Your task to perform on an android device: Check my gmail inbox Image 0: 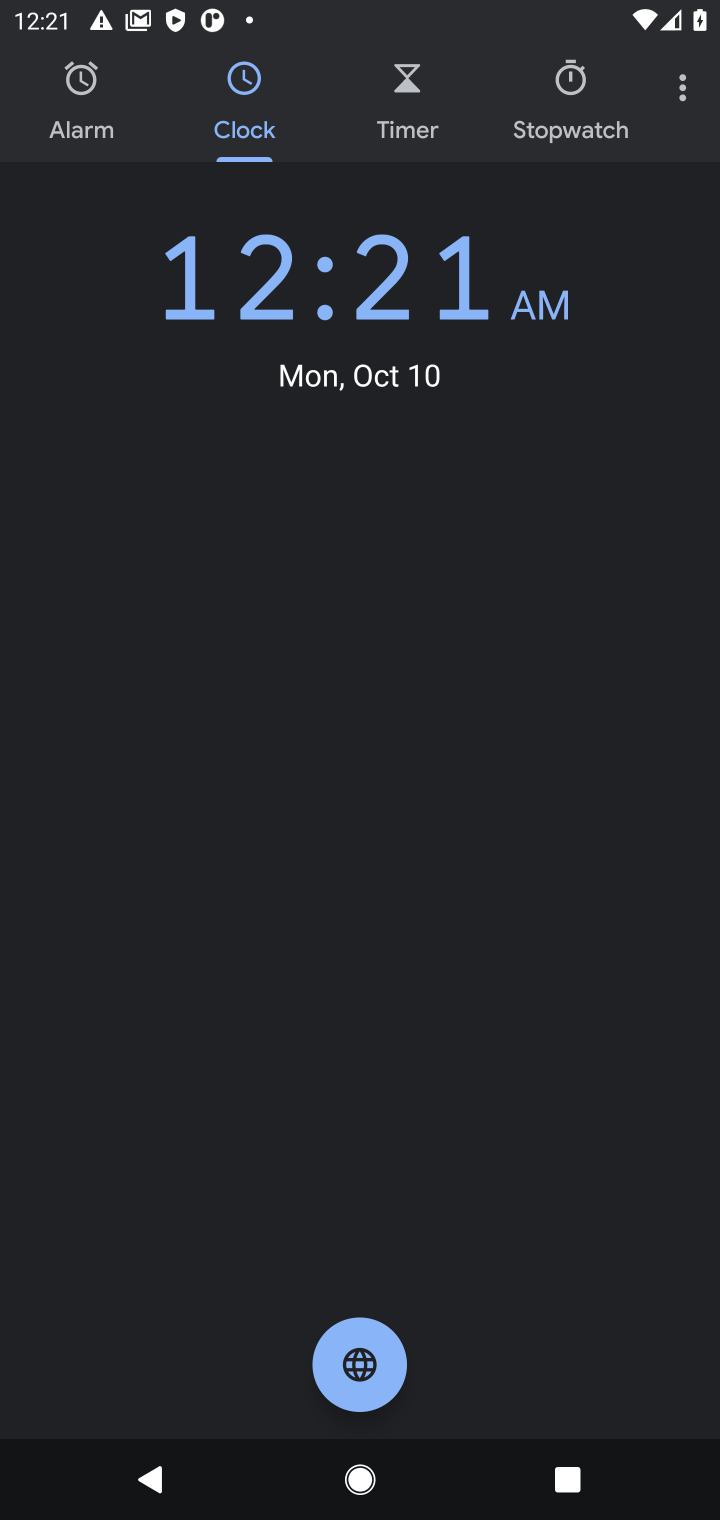
Step 0: press home button
Your task to perform on an android device: Check my gmail inbox Image 1: 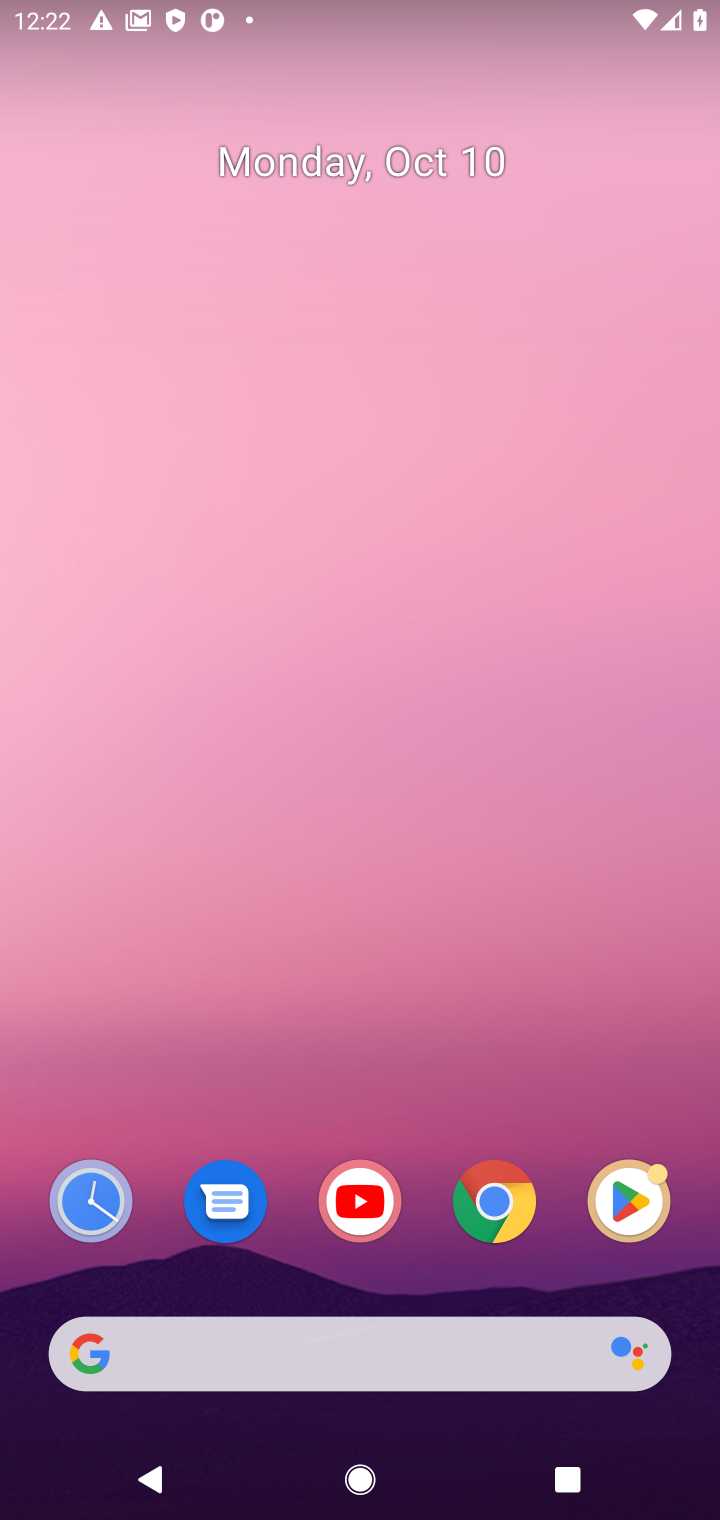
Step 1: drag from (562, 1180) to (619, 112)
Your task to perform on an android device: Check my gmail inbox Image 2: 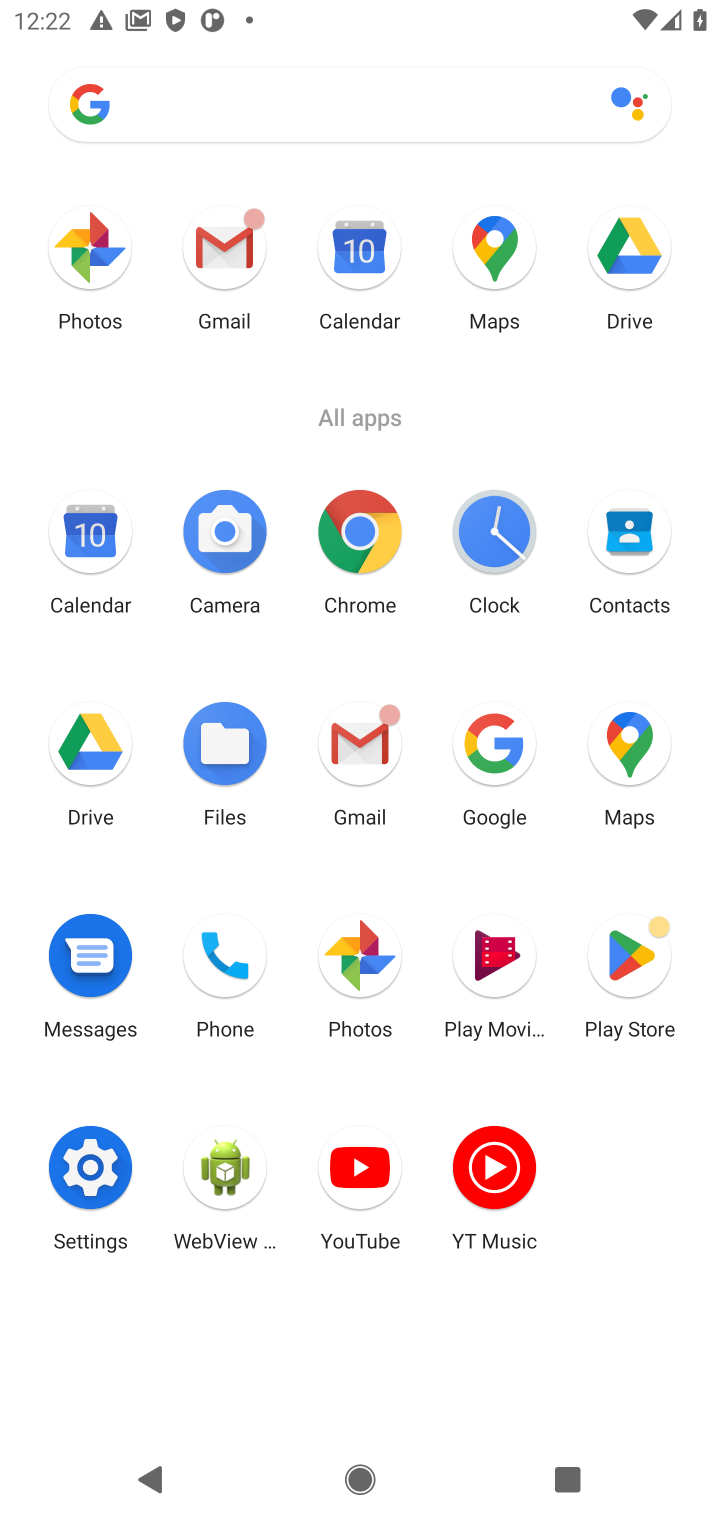
Step 2: click (226, 284)
Your task to perform on an android device: Check my gmail inbox Image 3: 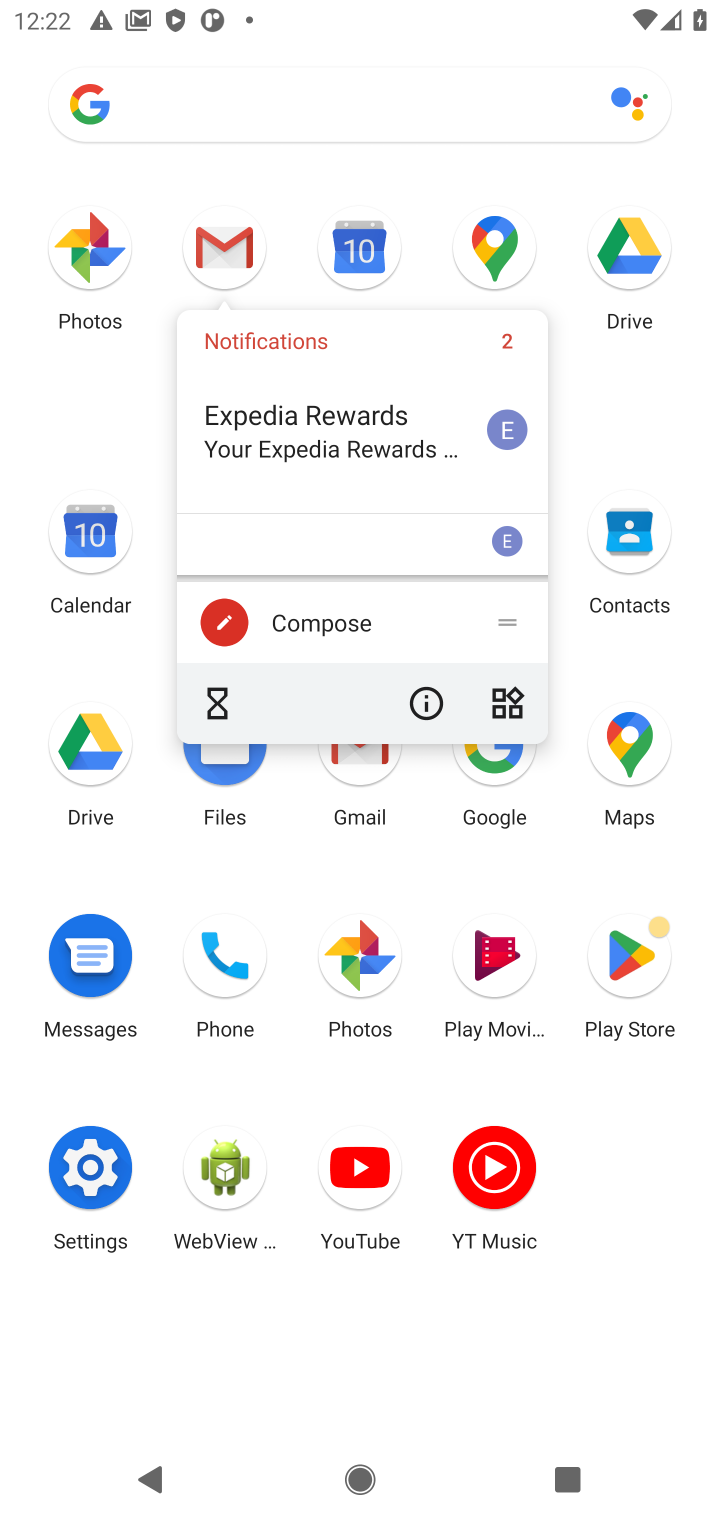
Step 3: click (224, 270)
Your task to perform on an android device: Check my gmail inbox Image 4: 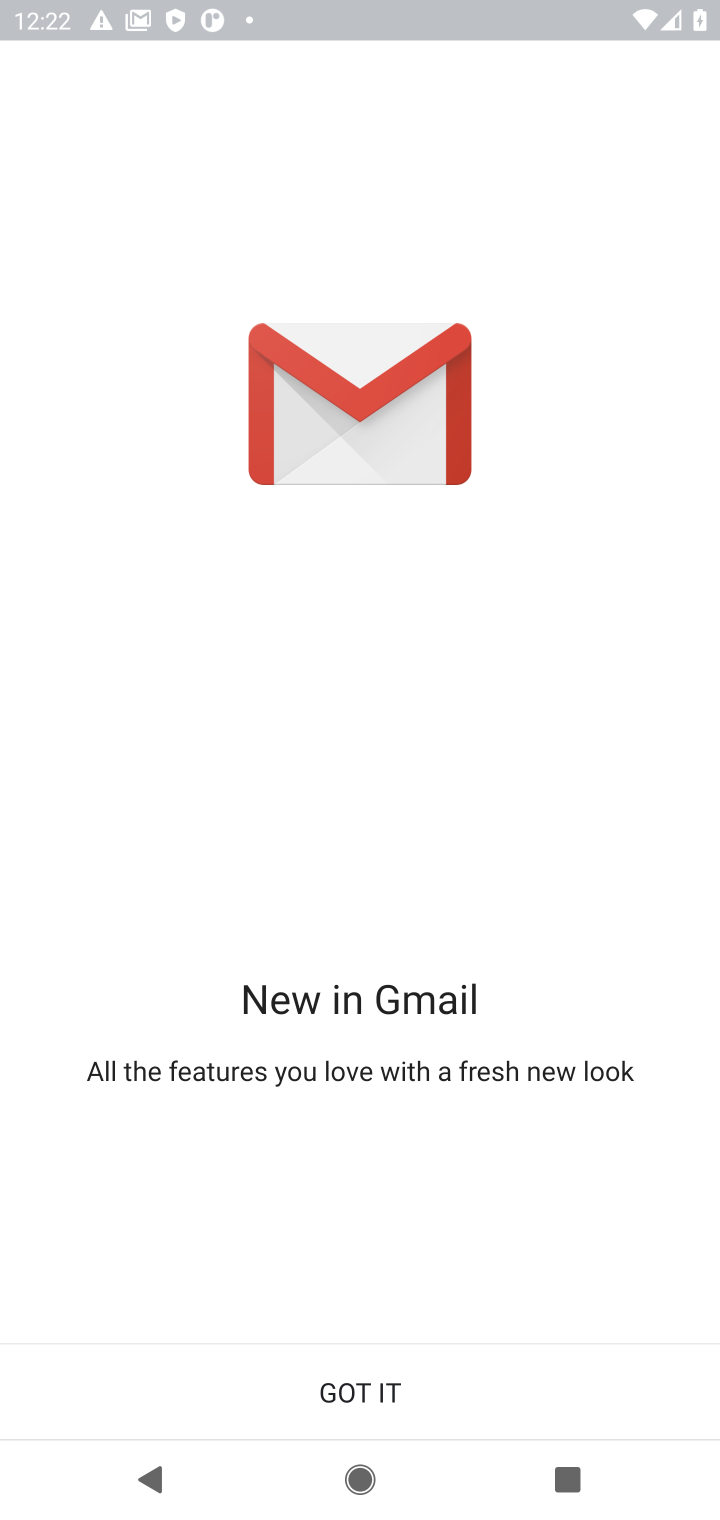
Step 4: click (328, 1419)
Your task to perform on an android device: Check my gmail inbox Image 5: 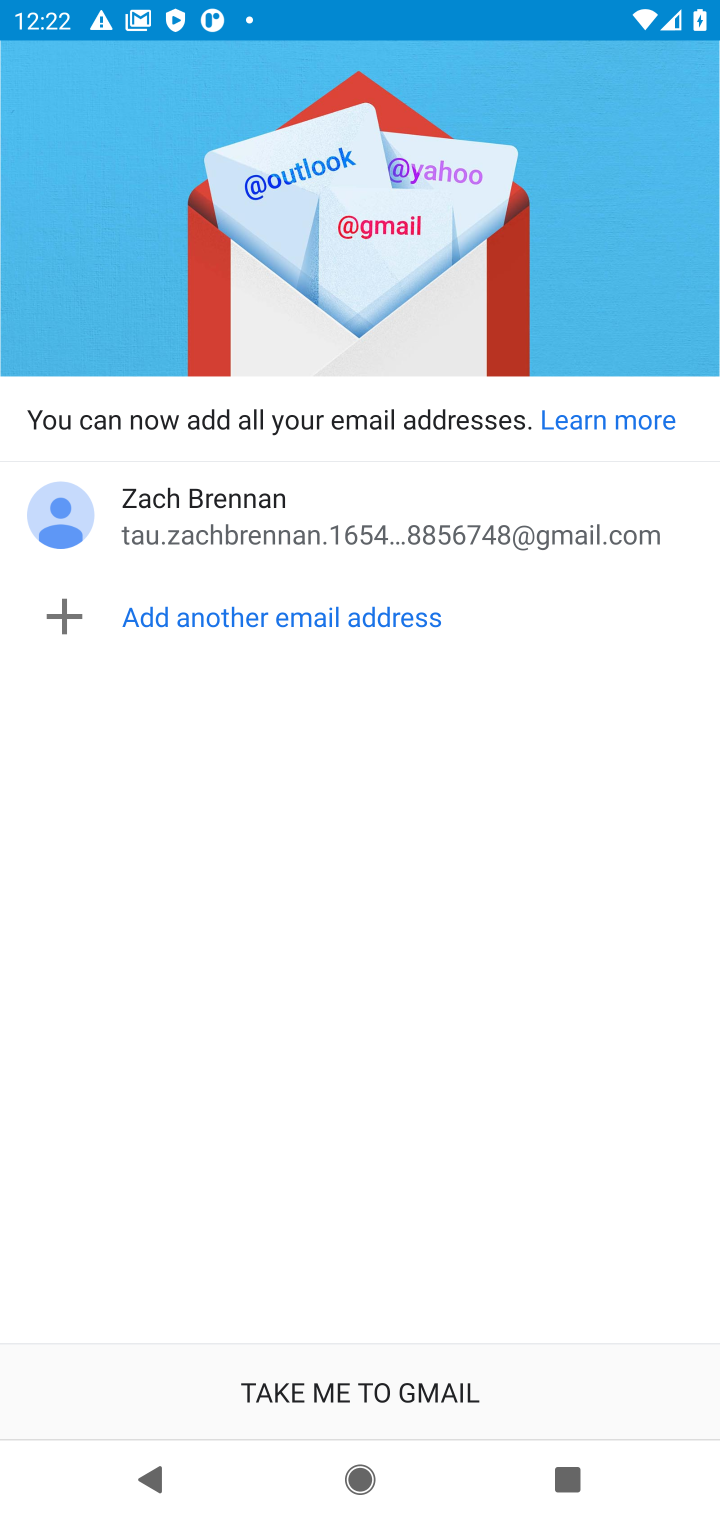
Step 5: click (336, 1404)
Your task to perform on an android device: Check my gmail inbox Image 6: 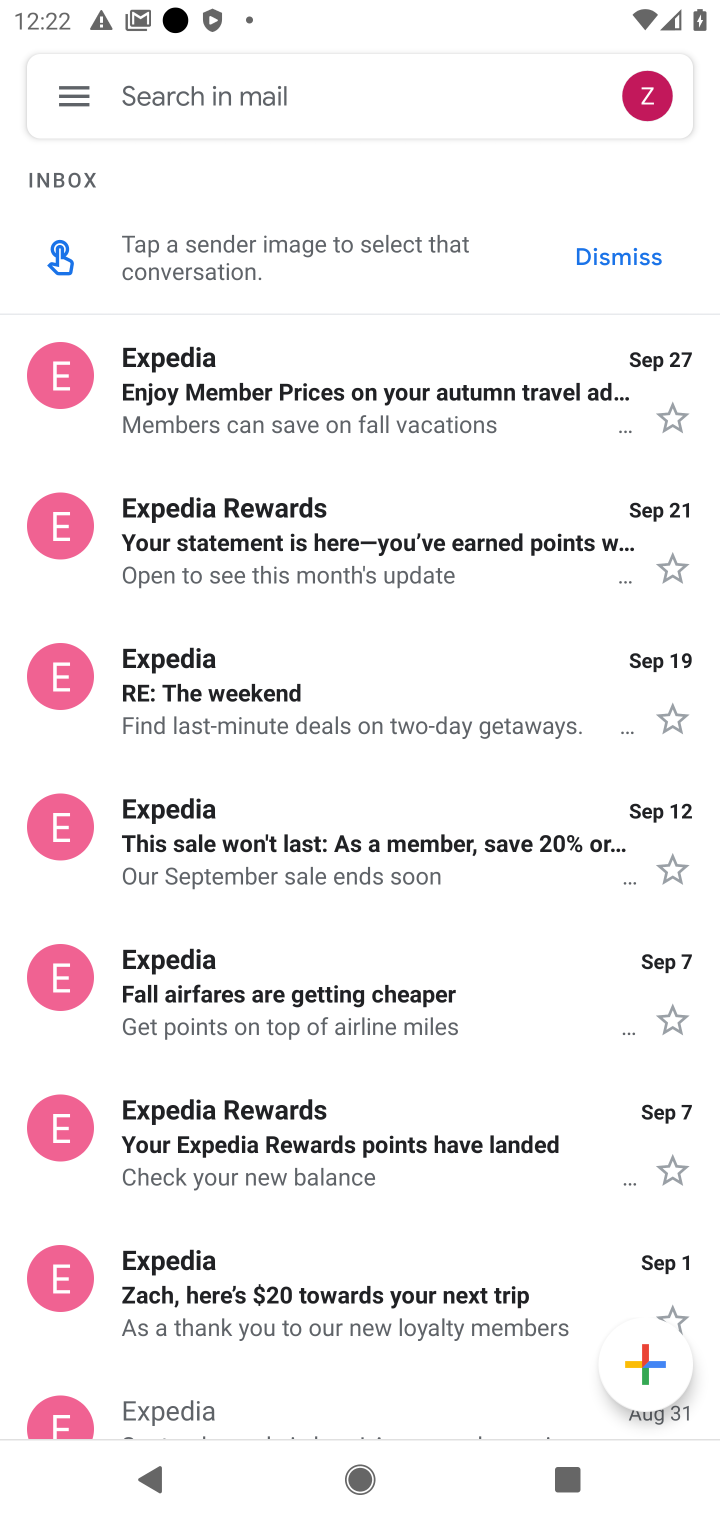
Step 6: task complete